Your task to perform on an android device: What's the news in the Dominican Republic? Image 0: 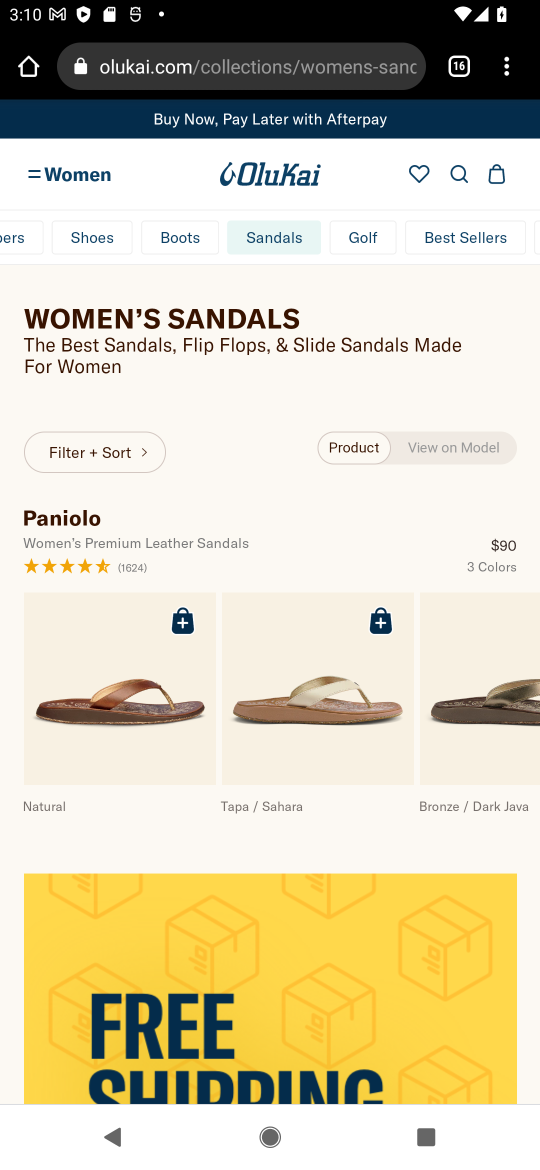
Step 0: press home button
Your task to perform on an android device: What's the news in the Dominican Republic? Image 1: 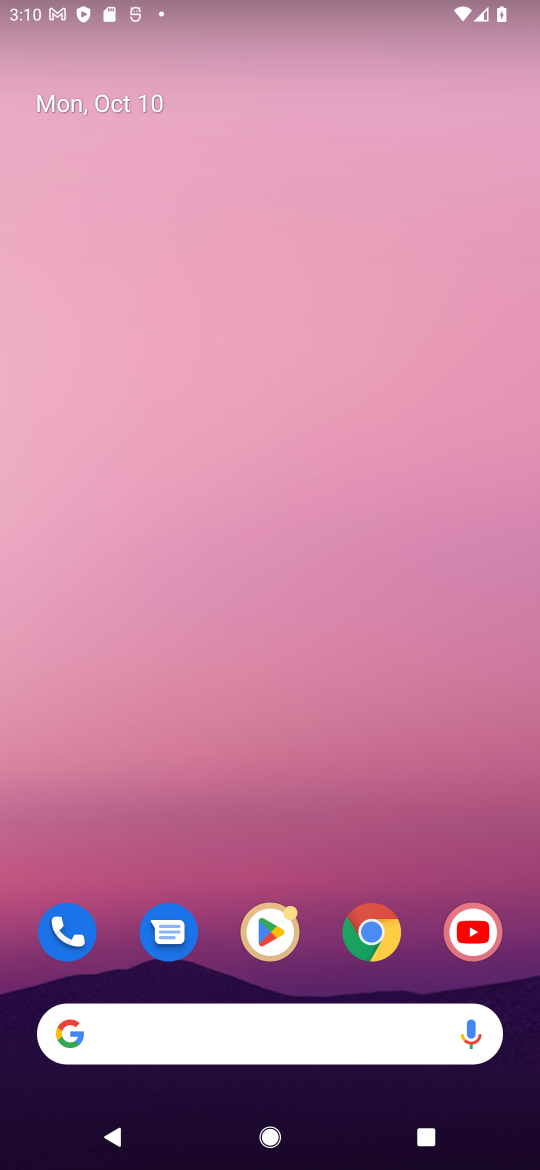
Step 1: click (286, 1027)
Your task to perform on an android device: What's the news in the Dominican Republic? Image 2: 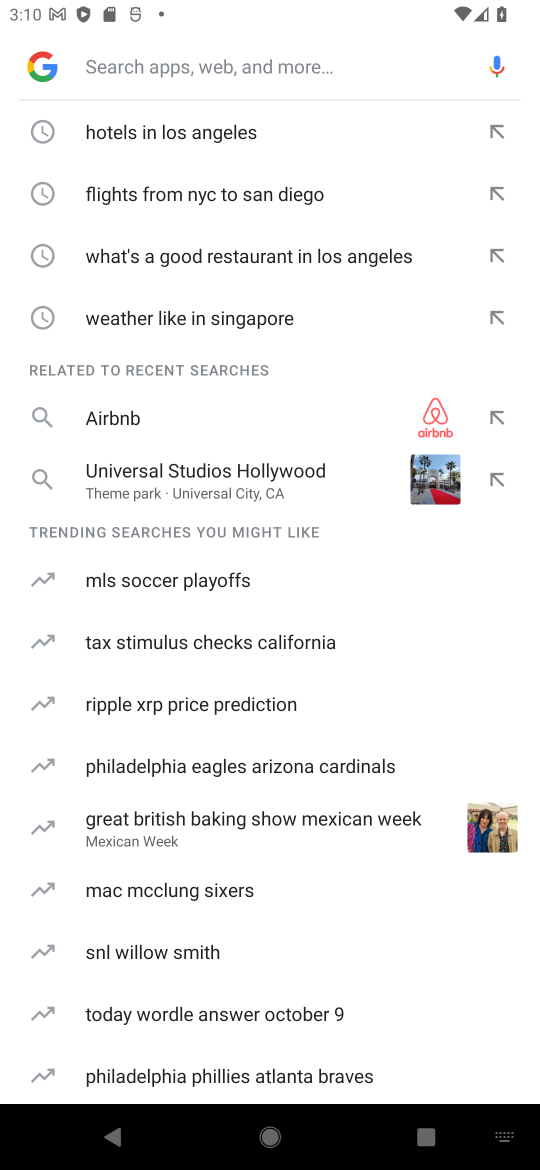
Step 2: type "What's the news in the Dominican Republic"
Your task to perform on an android device: What's the news in the Dominican Republic? Image 3: 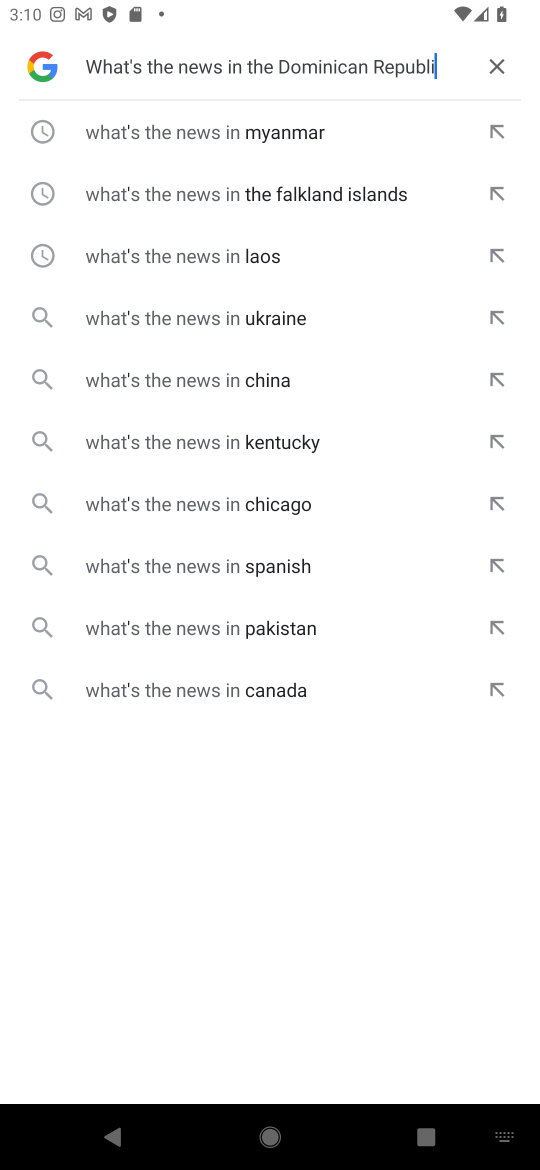
Step 3: press enter
Your task to perform on an android device: What's the news in the Dominican Republic? Image 4: 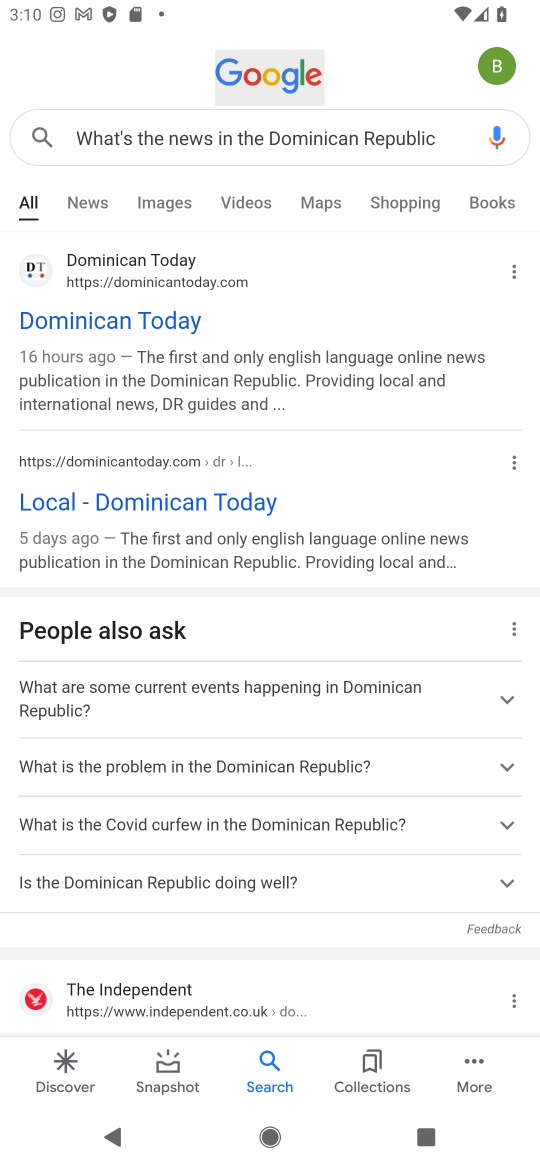
Step 4: drag from (280, 843) to (324, 441)
Your task to perform on an android device: What's the news in the Dominican Republic? Image 5: 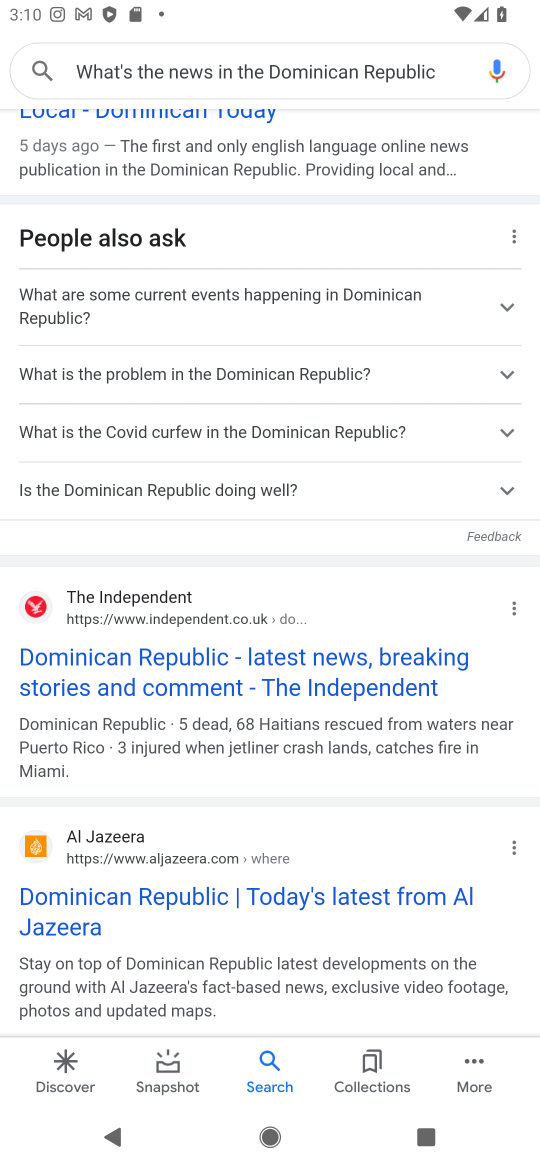
Step 5: click (375, 696)
Your task to perform on an android device: What's the news in the Dominican Republic? Image 6: 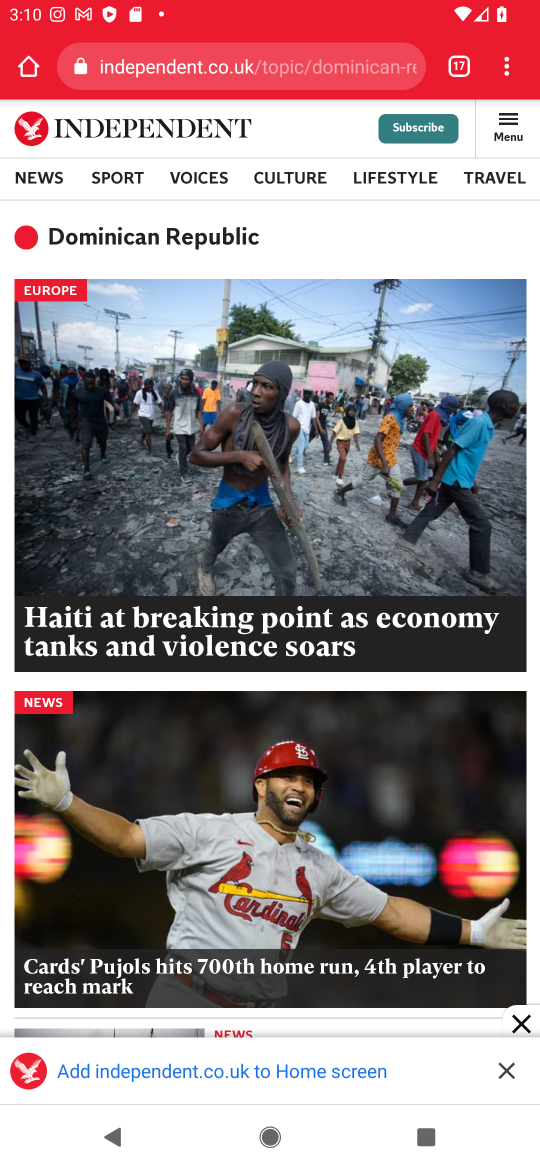
Step 6: task complete